Your task to perform on an android device: Go to Google Image 0: 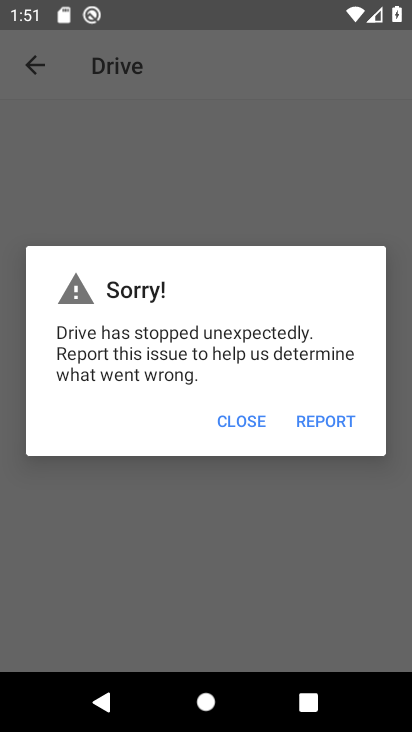
Step 0: press home button
Your task to perform on an android device: Go to Google Image 1: 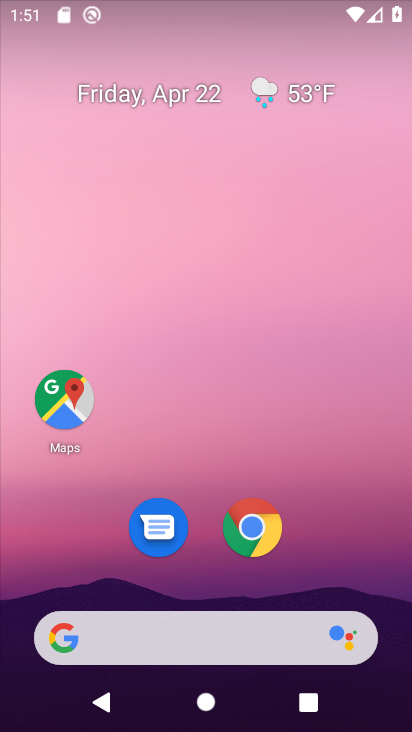
Step 1: drag from (371, 525) to (310, 0)
Your task to perform on an android device: Go to Google Image 2: 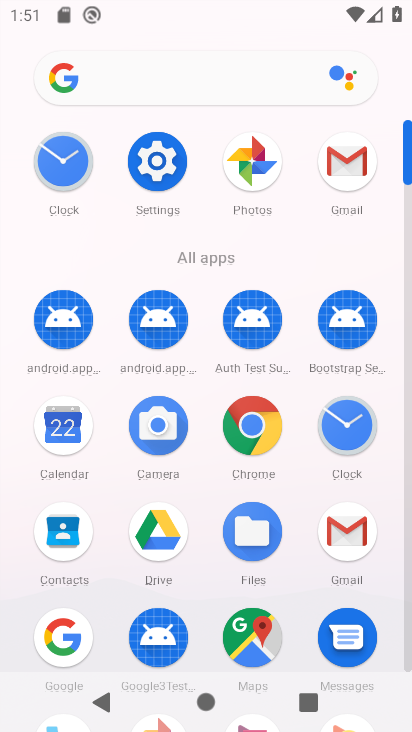
Step 2: click (70, 644)
Your task to perform on an android device: Go to Google Image 3: 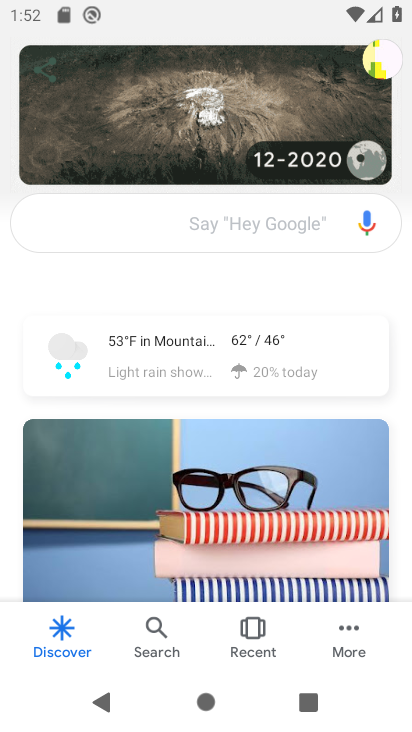
Step 3: task complete